Your task to perform on an android device: turn off location history Image 0: 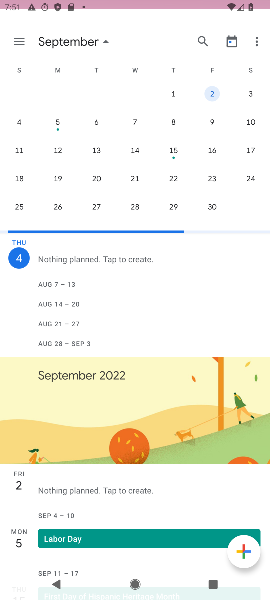
Step 0: click (126, 66)
Your task to perform on an android device: turn off location history Image 1: 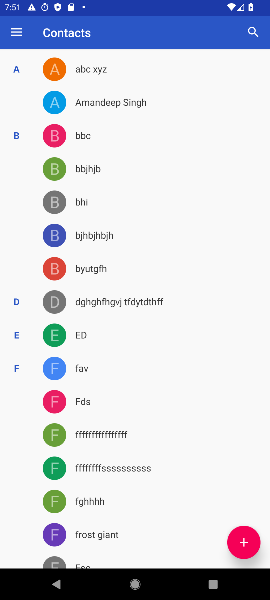
Step 1: press home button
Your task to perform on an android device: turn off location history Image 2: 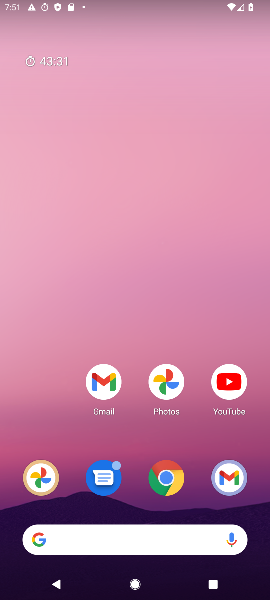
Step 2: drag from (90, 518) to (132, 136)
Your task to perform on an android device: turn off location history Image 3: 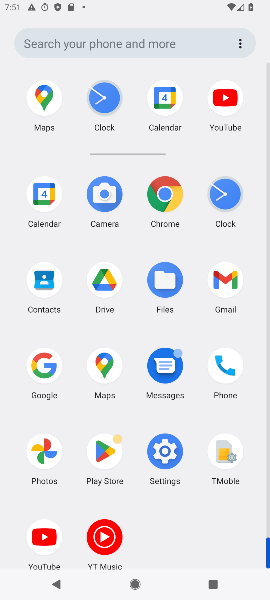
Step 3: click (171, 452)
Your task to perform on an android device: turn off location history Image 4: 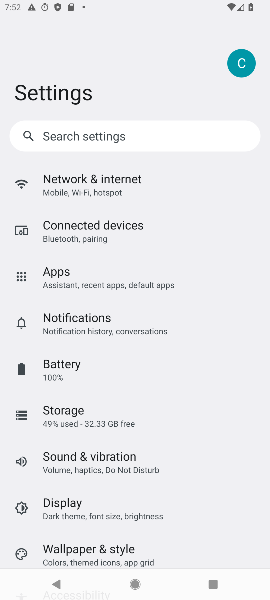
Step 4: drag from (125, 443) to (130, 201)
Your task to perform on an android device: turn off location history Image 5: 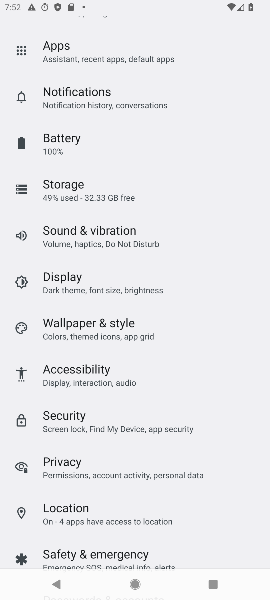
Step 5: click (87, 528)
Your task to perform on an android device: turn off location history Image 6: 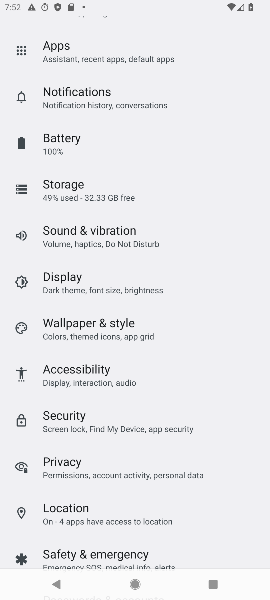
Step 6: click (91, 528)
Your task to perform on an android device: turn off location history Image 7: 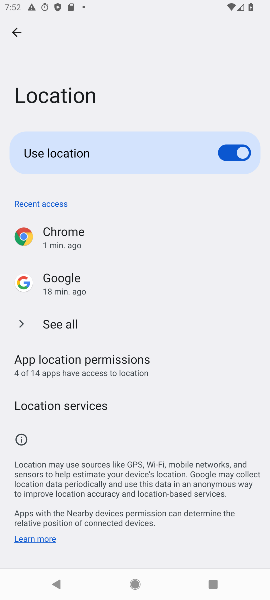
Step 7: click (57, 404)
Your task to perform on an android device: turn off location history Image 8: 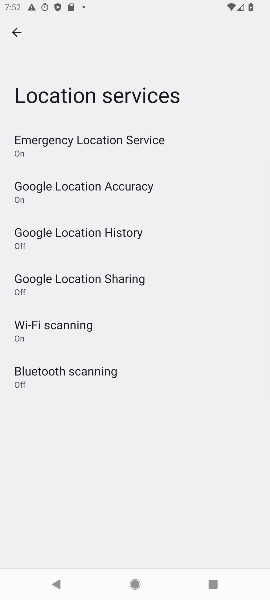
Step 8: click (114, 229)
Your task to perform on an android device: turn off location history Image 9: 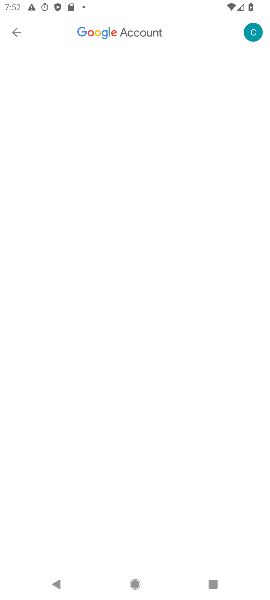
Step 9: drag from (142, 432) to (150, 235)
Your task to perform on an android device: turn off location history Image 10: 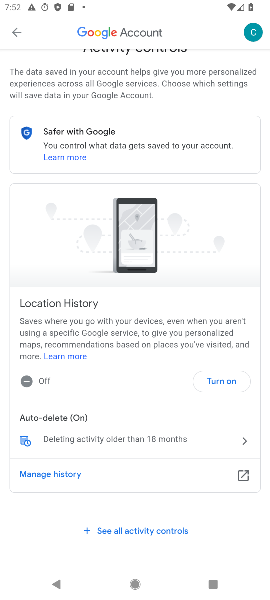
Step 10: click (37, 375)
Your task to perform on an android device: turn off location history Image 11: 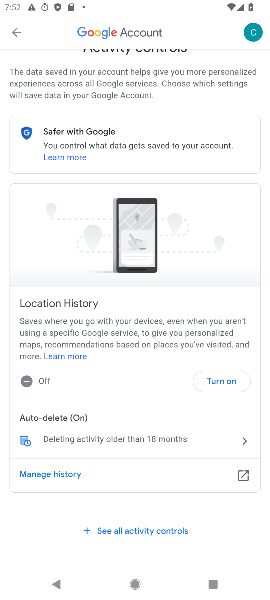
Step 11: click (36, 387)
Your task to perform on an android device: turn off location history Image 12: 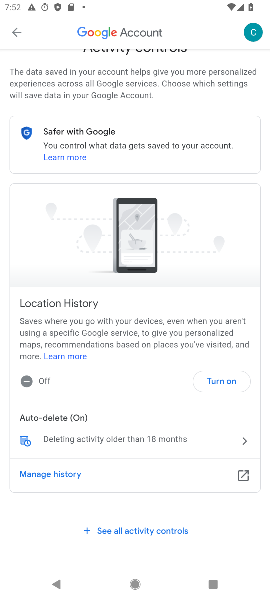
Step 12: task complete